Your task to perform on an android device: When is my next meeting? Image 0: 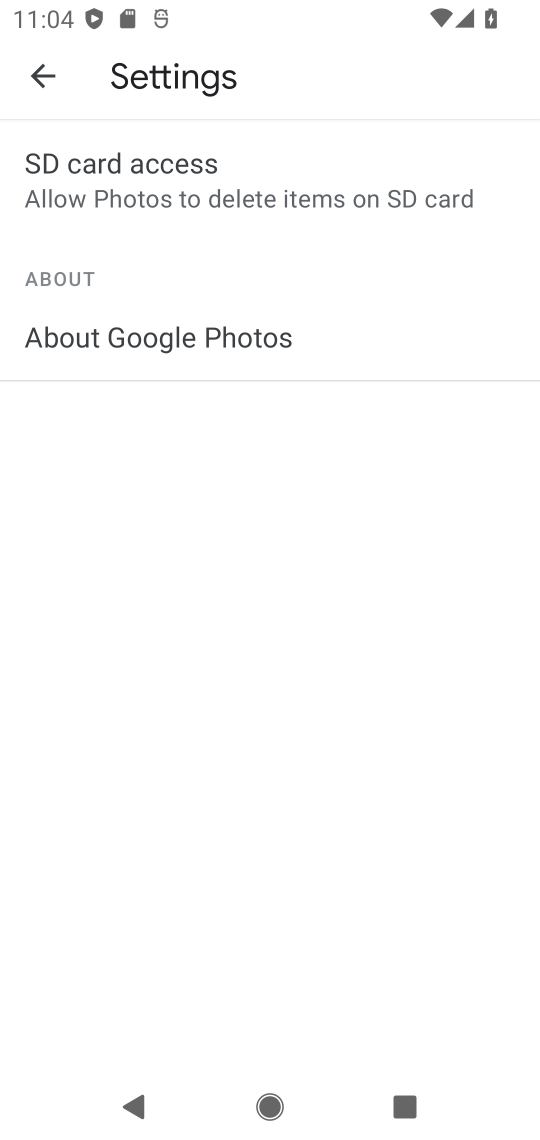
Step 0: press home button
Your task to perform on an android device: When is my next meeting? Image 1: 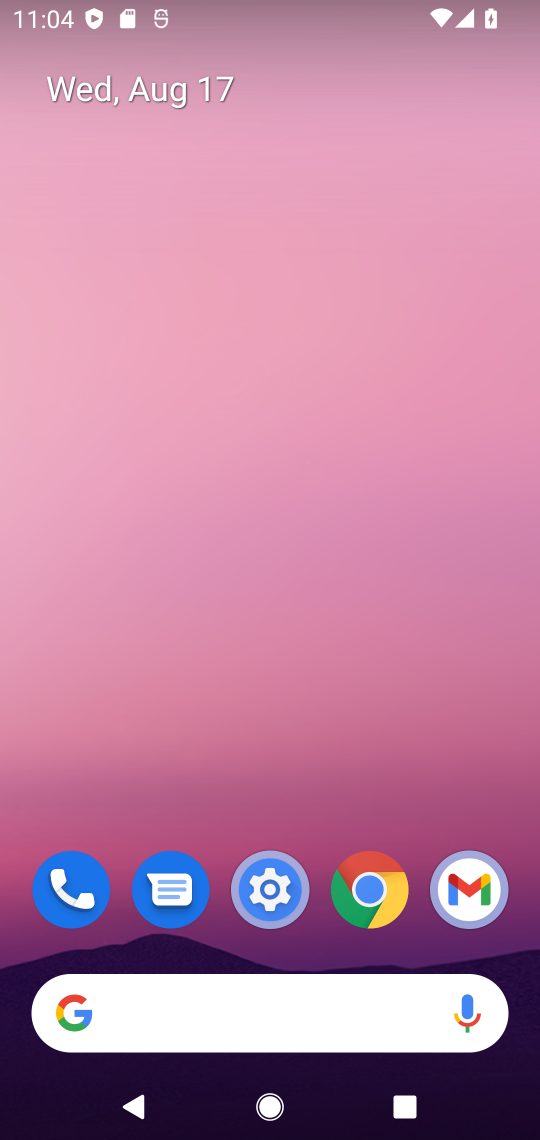
Step 1: drag from (328, 786) to (372, 0)
Your task to perform on an android device: When is my next meeting? Image 2: 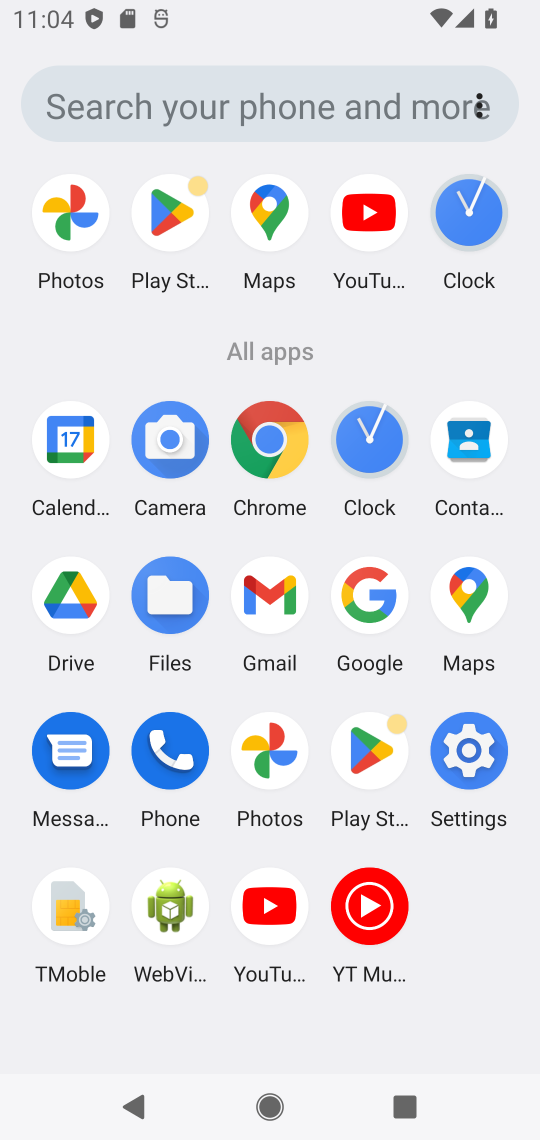
Step 2: click (71, 429)
Your task to perform on an android device: When is my next meeting? Image 3: 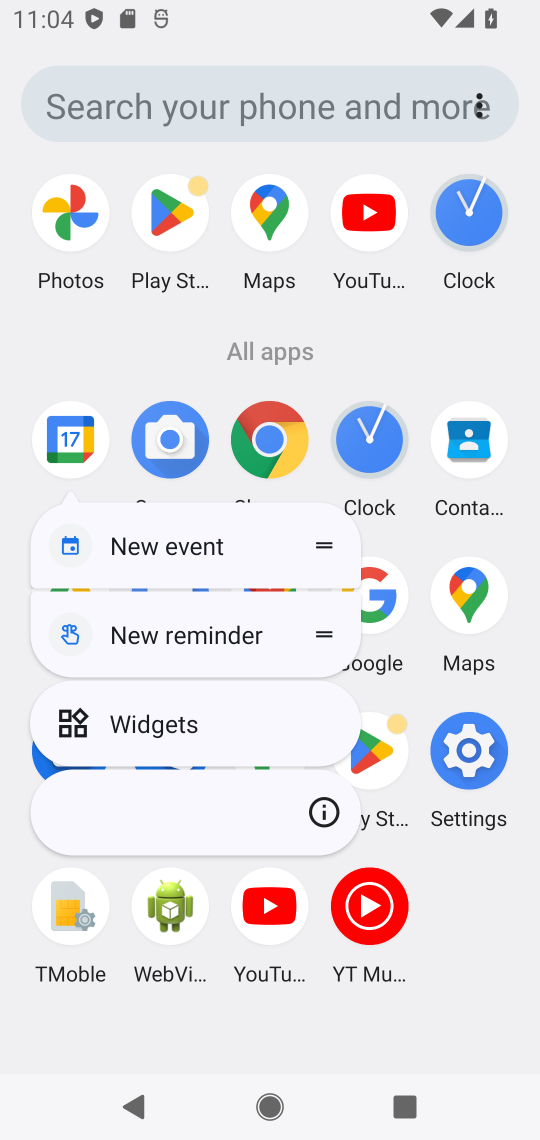
Step 3: click (71, 427)
Your task to perform on an android device: When is my next meeting? Image 4: 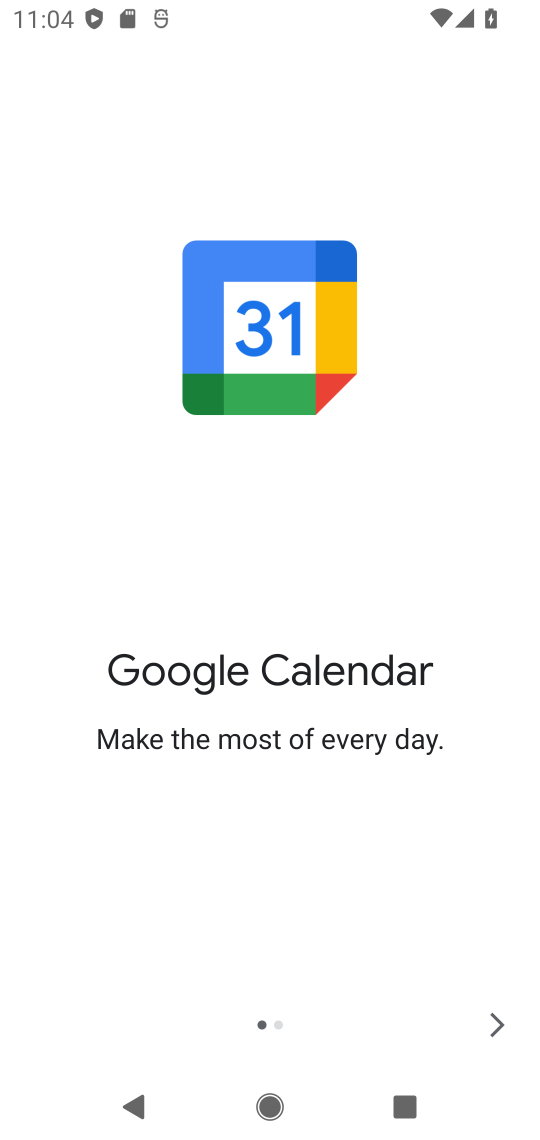
Step 4: click (488, 1022)
Your task to perform on an android device: When is my next meeting? Image 5: 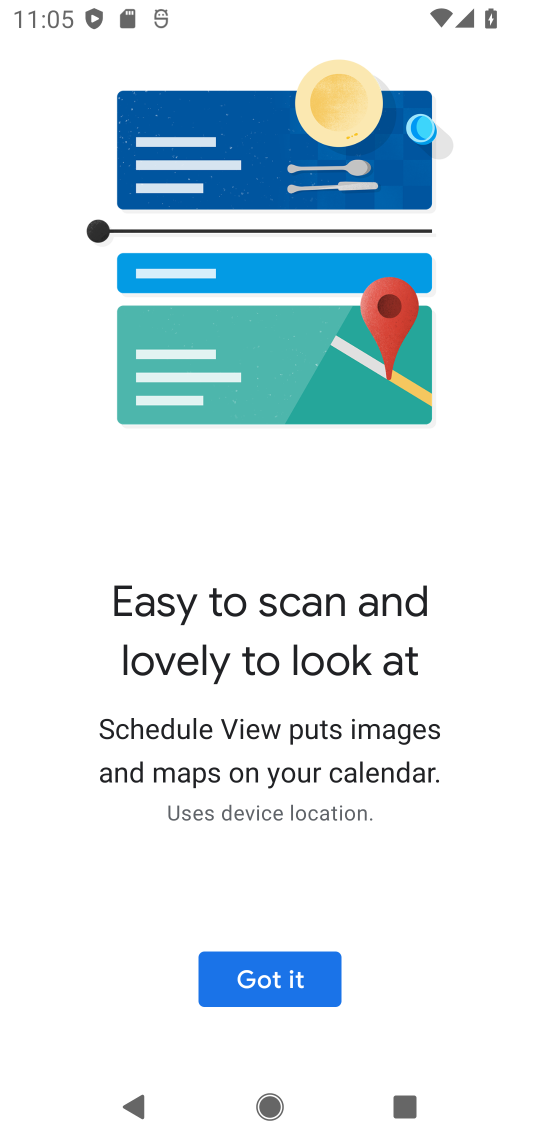
Step 5: click (301, 964)
Your task to perform on an android device: When is my next meeting? Image 6: 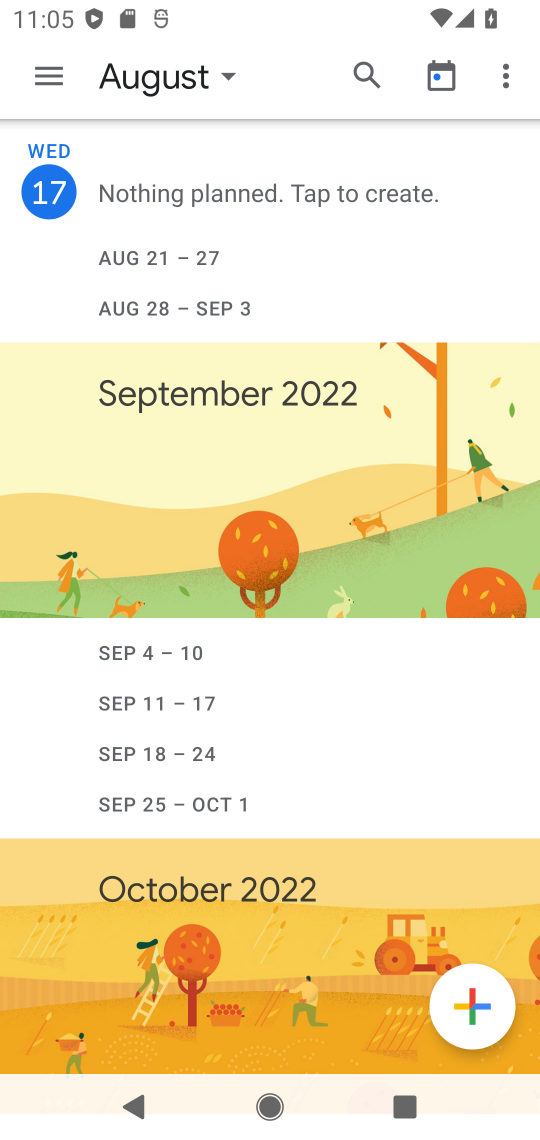
Step 6: task complete